Your task to perform on an android device: check android version Image 0: 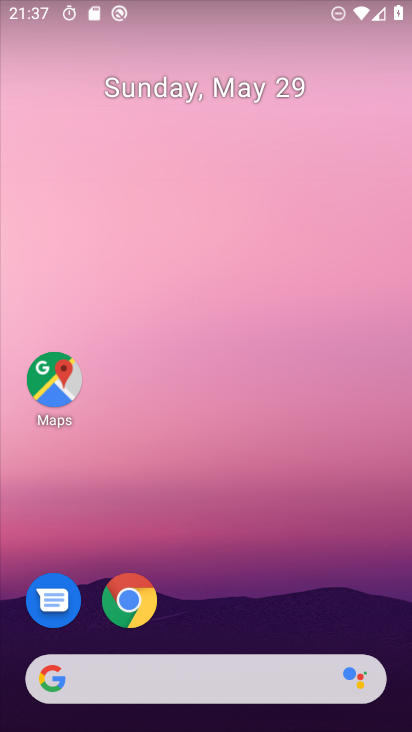
Step 0: drag from (306, 589) to (375, 233)
Your task to perform on an android device: check android version Image 1: 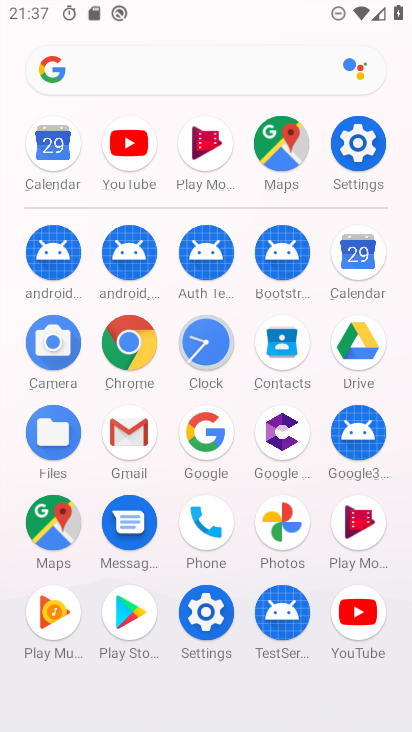
Step 1: click (197, 630)
Your task to perform on an android device: check android version Image 2: 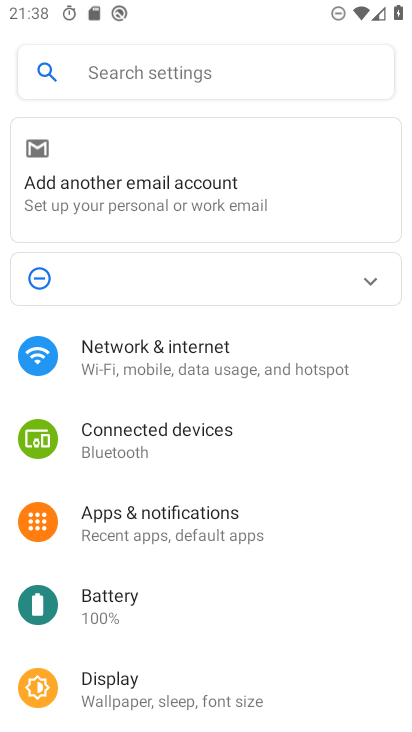
Step 2: drag from (195, 628) to (253, 361)
Your task to perform on an android device: check android version Image 3: 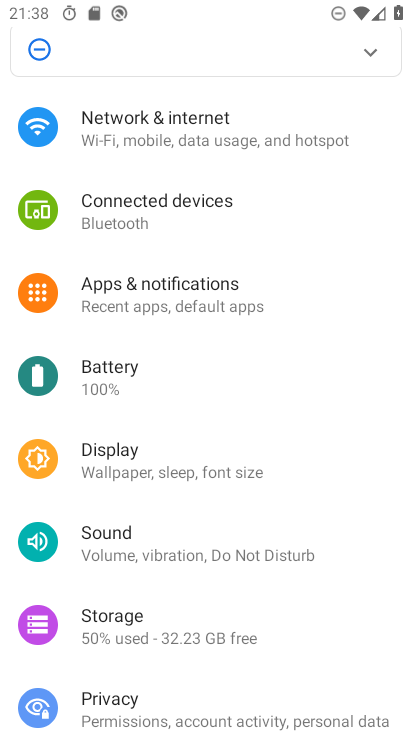
Step 3: drag from (266, 671) to (315, 289)
Your task to perform on an android device: check android version Image 4: 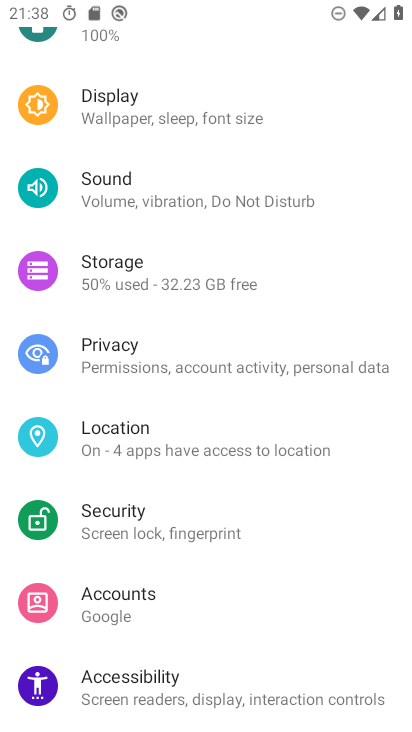
Step 4: drag from (296, 620) to (352, 286)
Your task to perform on an android device: check android version Image 5: 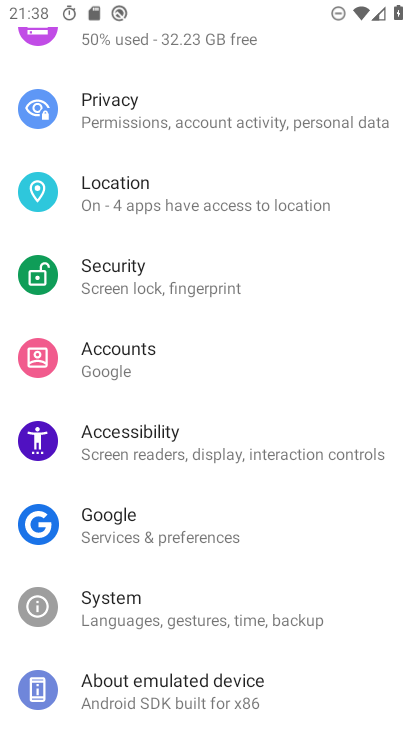
Step 5: drag from (238, 668) to (310, 352)
Your task to perform on an android device: check android version Image 6: 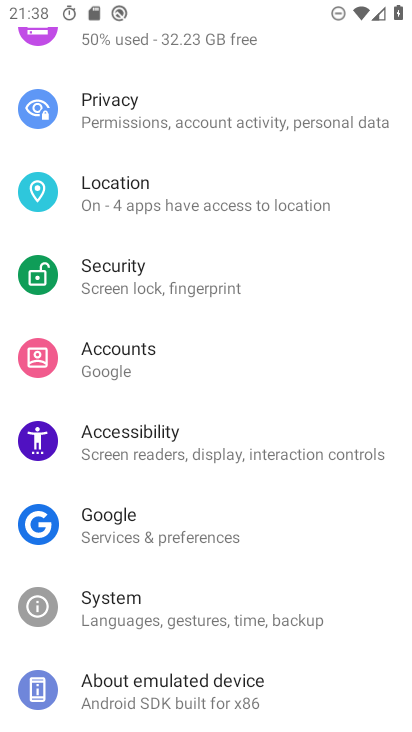
Step 6: click (206, 678)
Your task to perform on an android device: check android version Image 7: 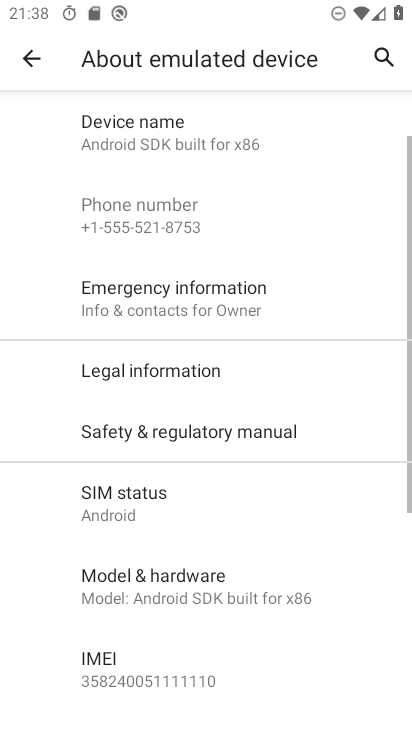
Step 7: drag from (230, 657) to (315, 301)
Your task to perform on an android device: check android version Image 8: 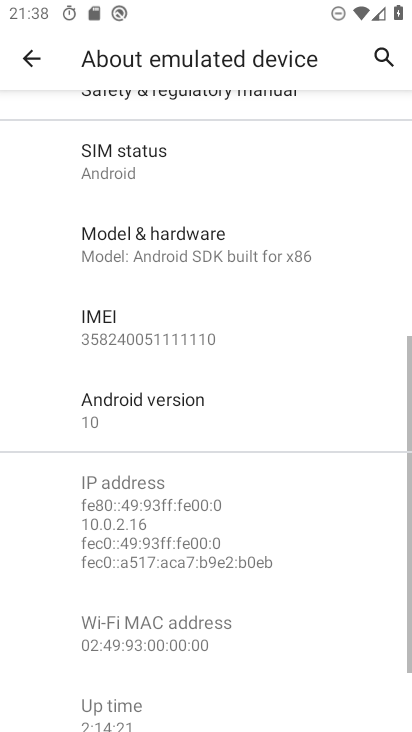
Step 8: click (219, 415)
Your task to perform on an android device: check android version Image 9: 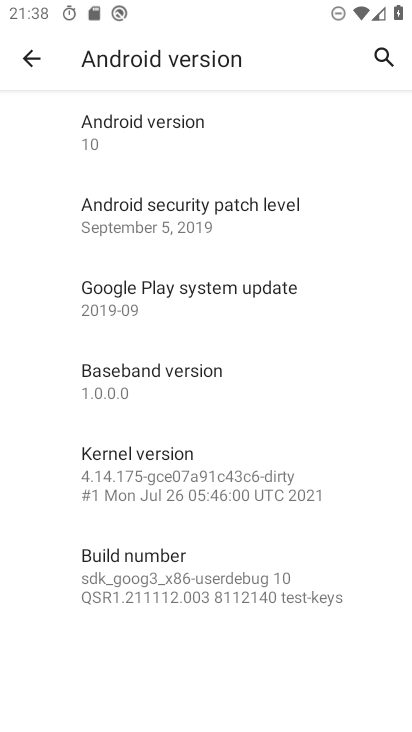
Step 9: task complete